Your task to perform on an android device: Go to ESPN.com Image 0: 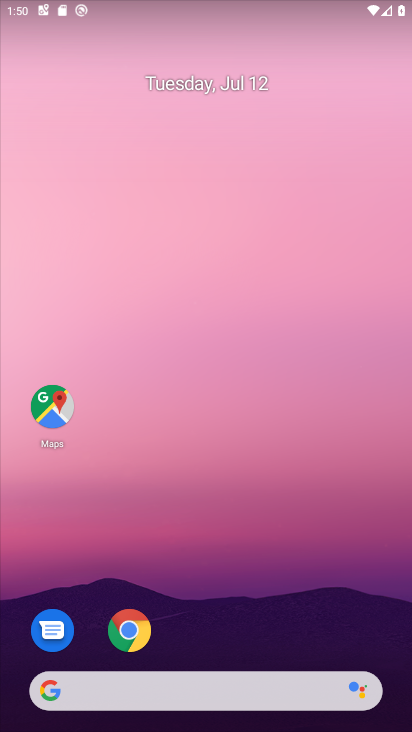
Step 0: drag from (236, 655) to (303, 151)
Your task to perform on an android device: Go to ESPN.com Image 1: 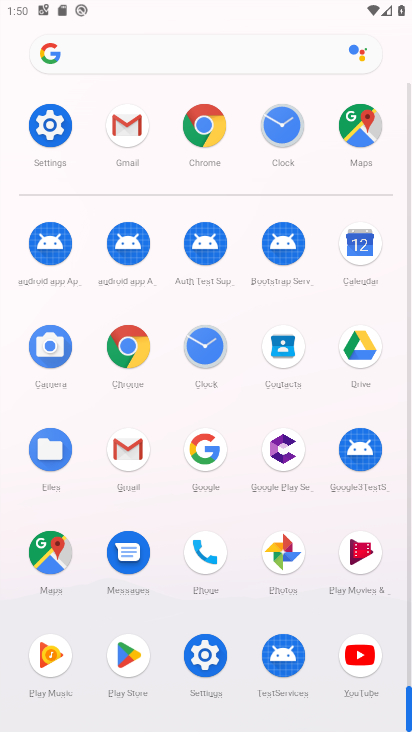
Step 1: click (219, 138)
Your task to perform on an android device: Go to ESPN.com Image 2: 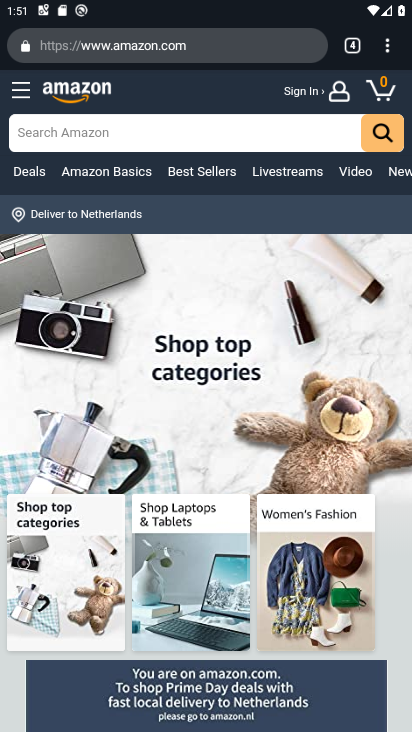
Step 2: click (179, 46)
Your task to perform on an android device: Go to ESPN.com Image 3: 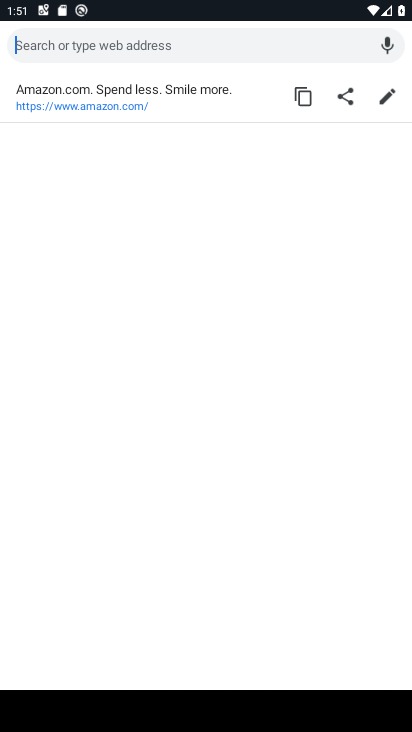
Step 3: type "espn"
Your task to perform on an android device: Go to ESPN.com Image 4: 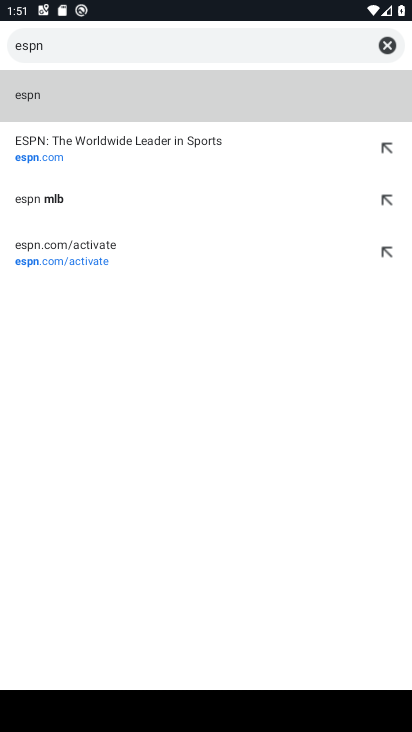
Step 4: click (183, 155)
Your task to perform on an android device: Go to ESPN.com Image 5: 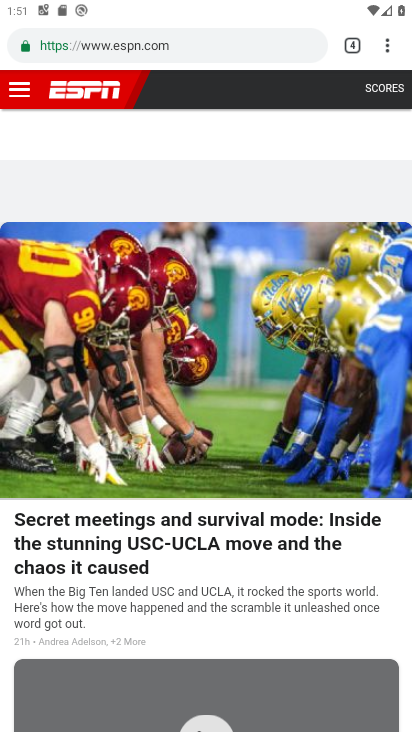
Step 5: task complete